Your task to perform on an android device: Turn on the flashlight Image 0: 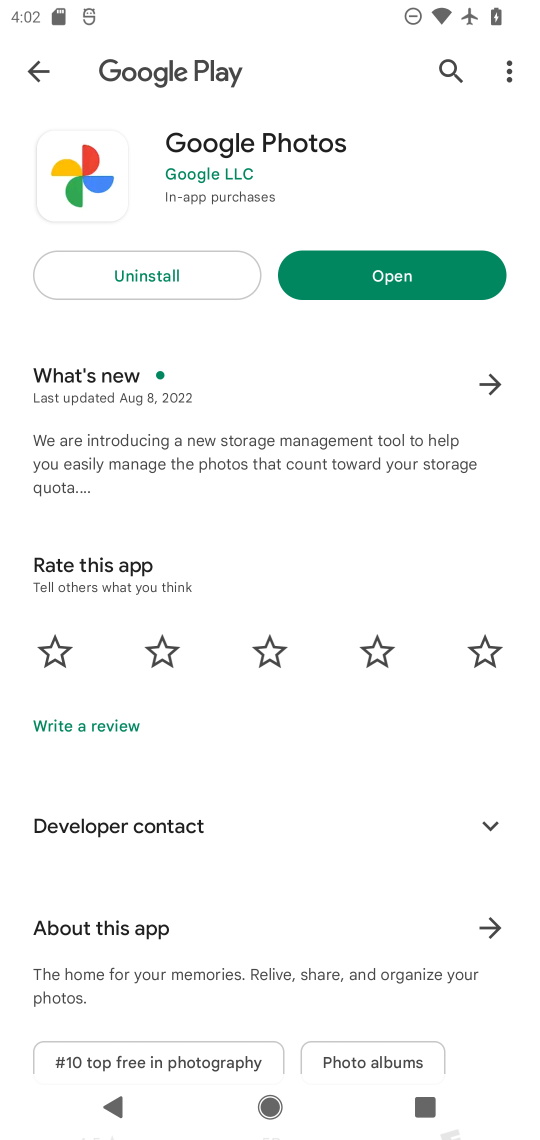
Step 0: press home button
Your task to perform on an android device: Turn on the flashlight Image 1: 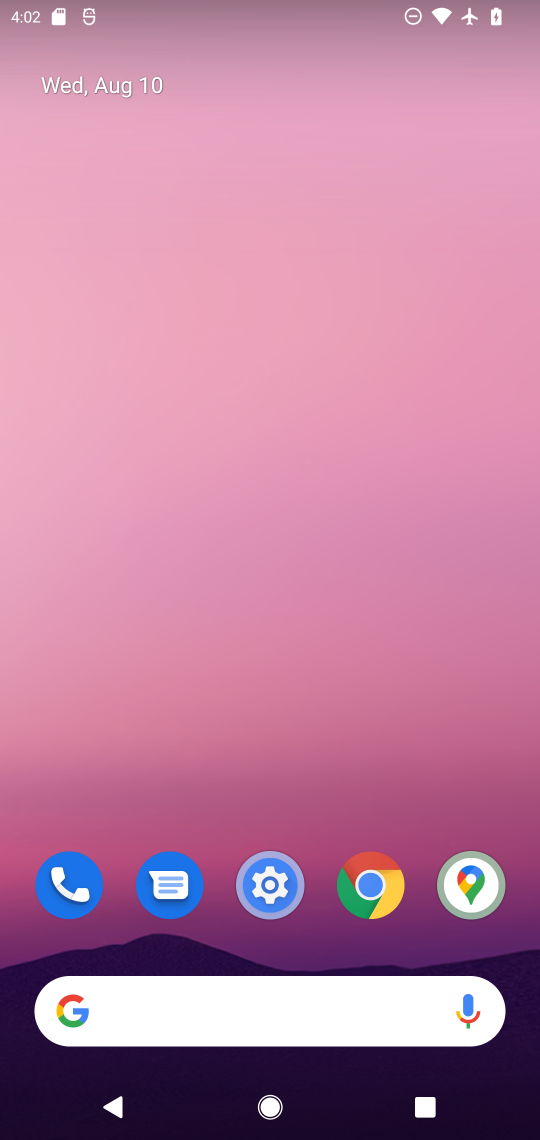
Step 1: click (274, 883)
Your task to perform on an android device: Turn on the flashlight Image 2: 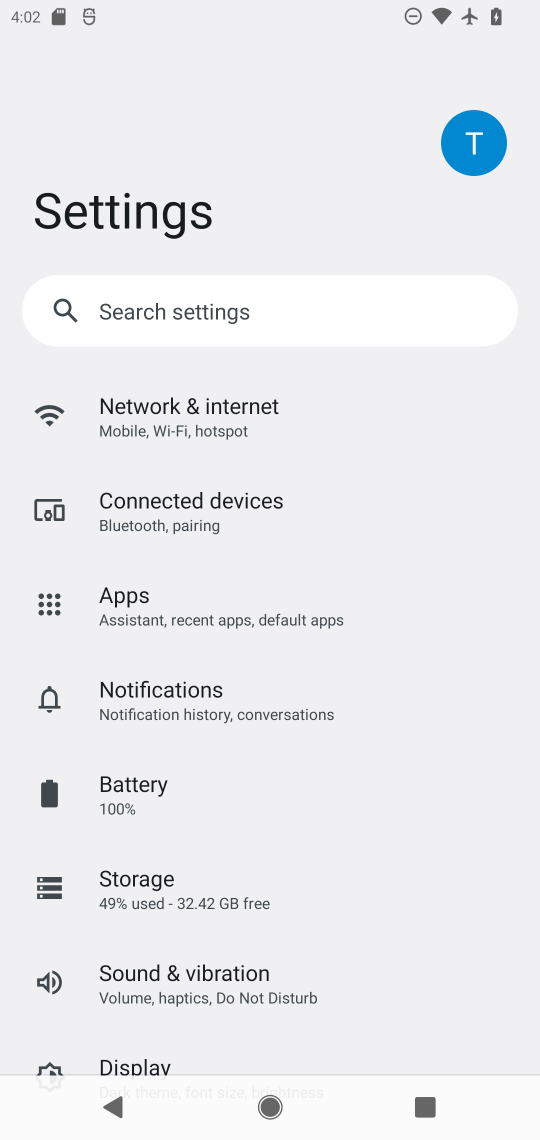
Step 2: click (147, 1050)
Your task to perform on an android device: Turn on the flashlight Image 3: 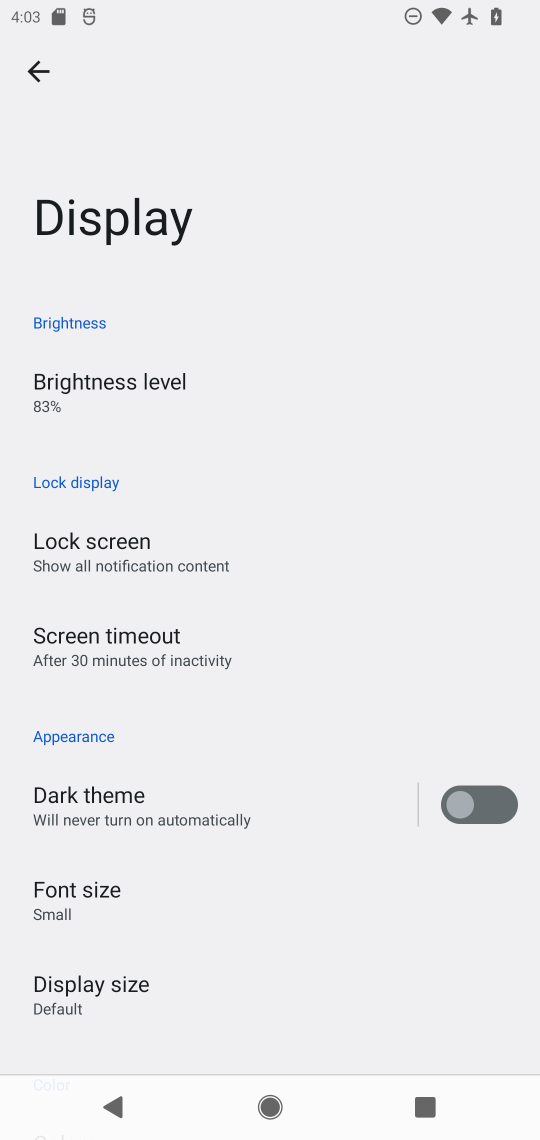
Step 3: task complete